Your task to perform on an android device: What's the weather going to be tomorrow? Image 0: 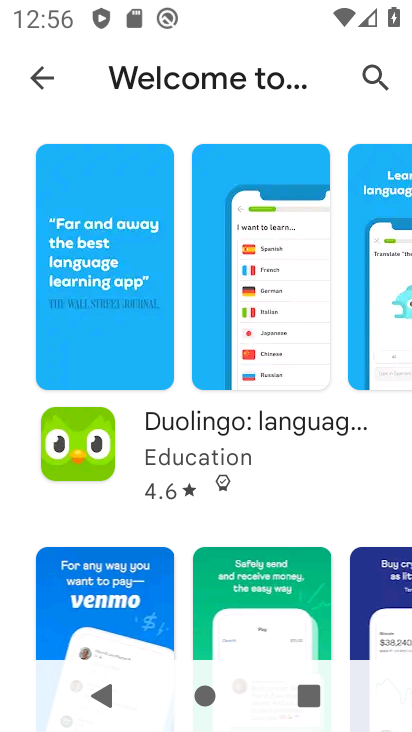
Step 0: press home button
Your task to perform on an android device: What's the weather going to be tomorrow? Image 1: 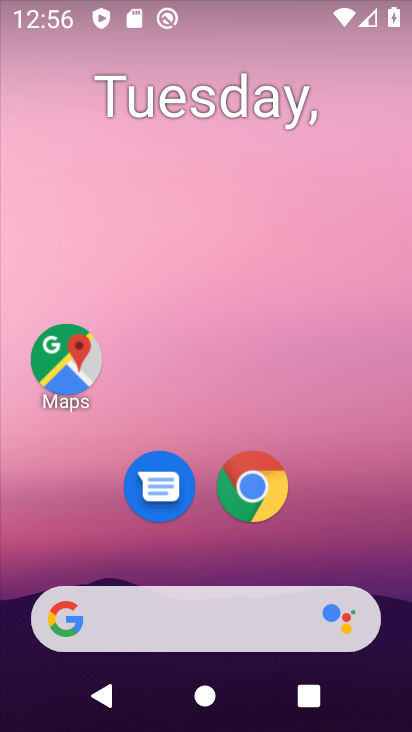
Step 1: click (257, 483)
Your task to perform on an android device: What's the weather going to be tomorrow? Image 2: 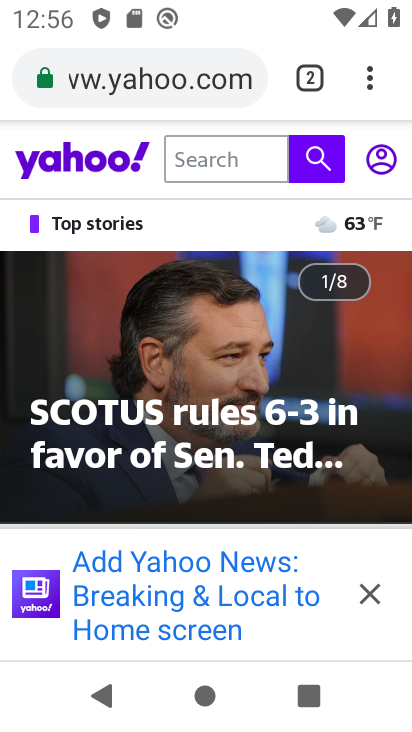
Step 2: drag from (162, 646) to (411, 245)
Your task to perform on an android device: What's the weather going to be tomorrow? Image 3: 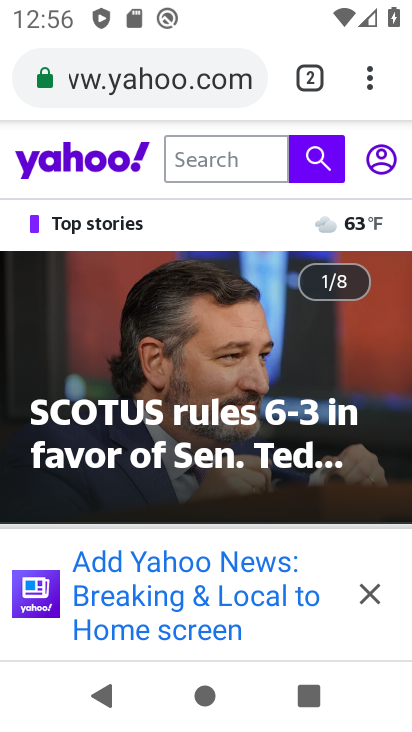
Step 3: click (205, 65)
Your task to perform on an android device: What's the weather going to be tomorrow? Image 4: 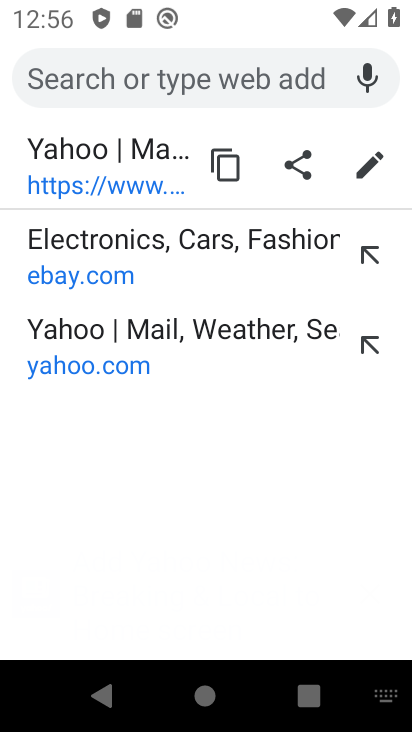
Step 4: type "What's the weather going to be tomorrow?"
Your task to perform on an android device: What's the weather going to be tomorrow? Image 5: 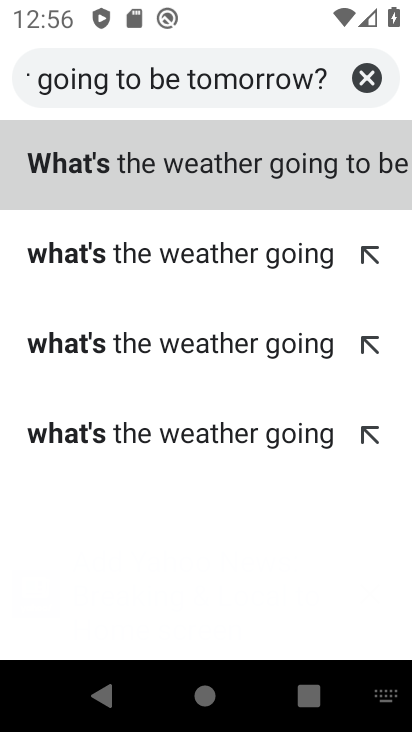
Step 5: click (323, 183)
Your task to perform on an android device: What's the weather going to be tomorrow? Image 6: 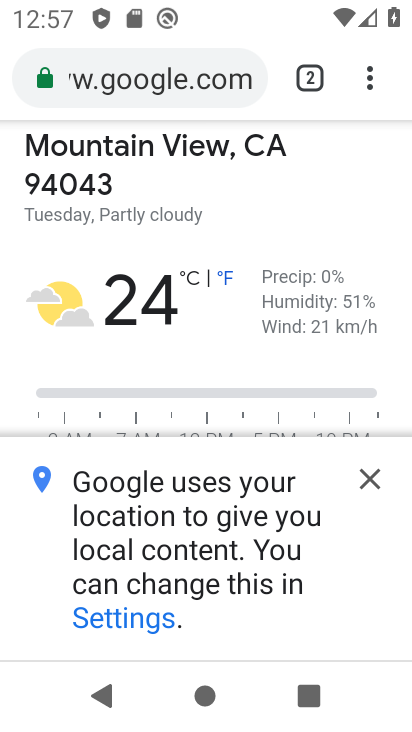
Step 6: click (365, 484)
Your task to perform on an android device: What's the weather going to be tomorrow? Image 7: 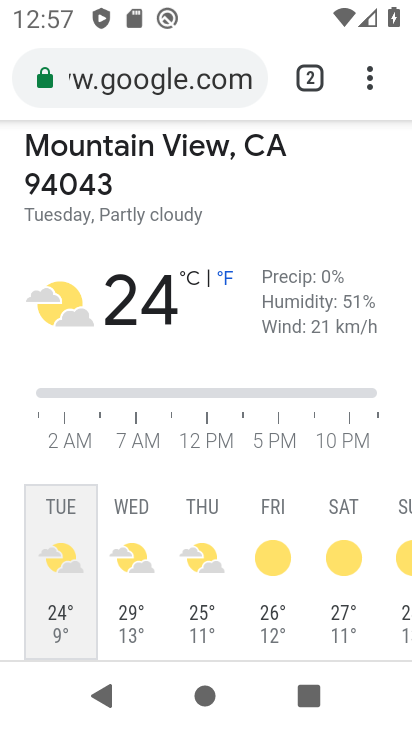
Step 7: task complete